Your task to perform on an android device: turn off notifications settings in the gmail app Image 0: 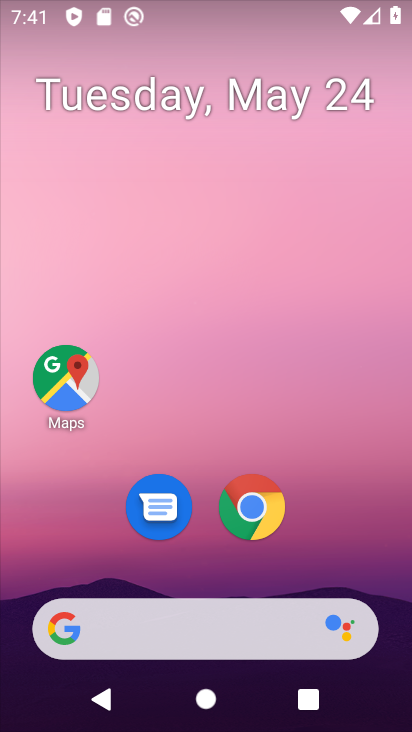
Step 0: press home button
Your task to perform on an android device: turn off notifications settings in the gmail app Image 1: 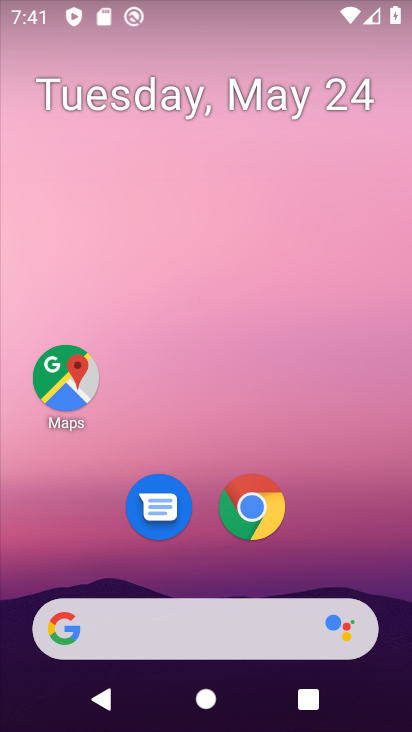
Step 1: drag from (151, 626) to (345, 146)
Your task to perform on an android device: turn off notifications settings in the gmail app Image 2: 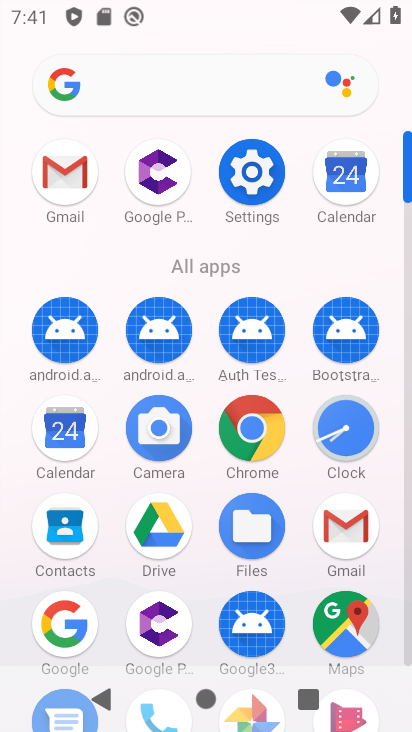
Step 2: click (66, 181)
Your task to perform on an android device: turn off notifications settings in the gmail app Image 3: 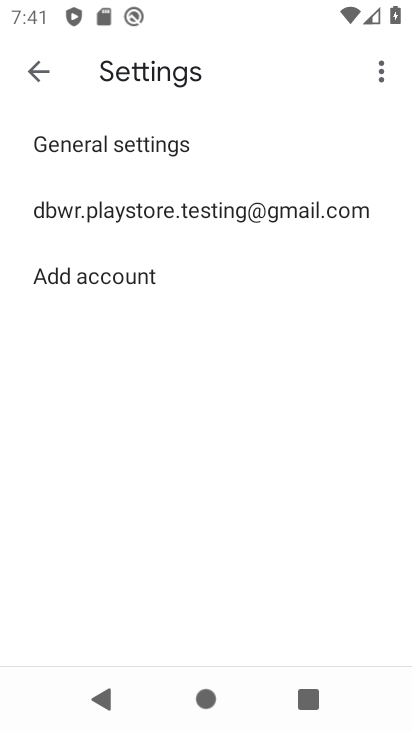
Step 3: click (148, 212)
Your task to perform on an android device: turn off notifications settings in the gmail app Image 4: 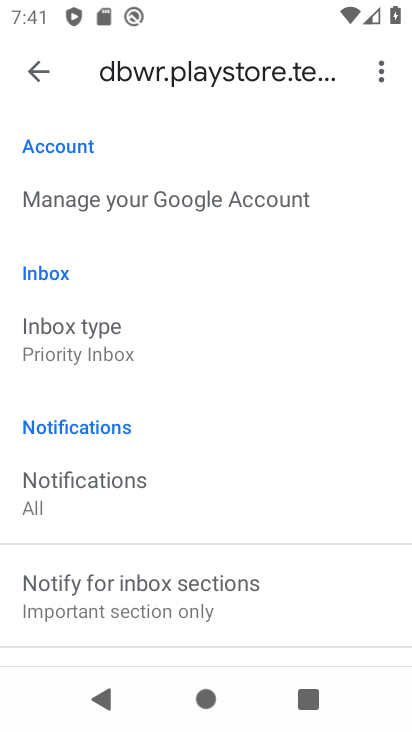
Step 4: click (96, 496)
Your task to perform on an android device: turn off notifications settings in the gmail app Image 5: 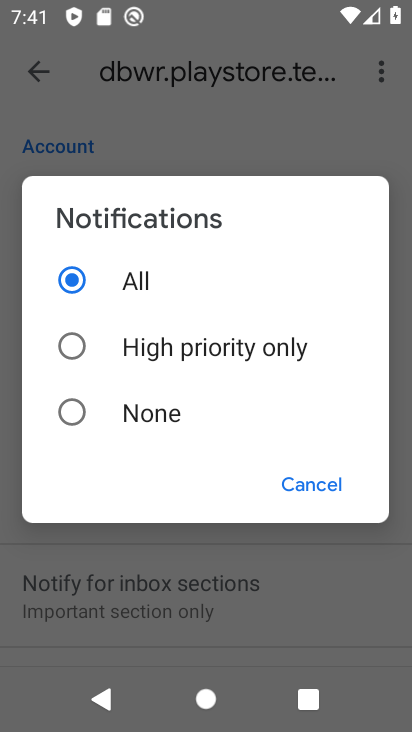
Step 5: click (78, 404)
Your task to perform on an android device: turn off notifications settings in the gmail app Image 6: 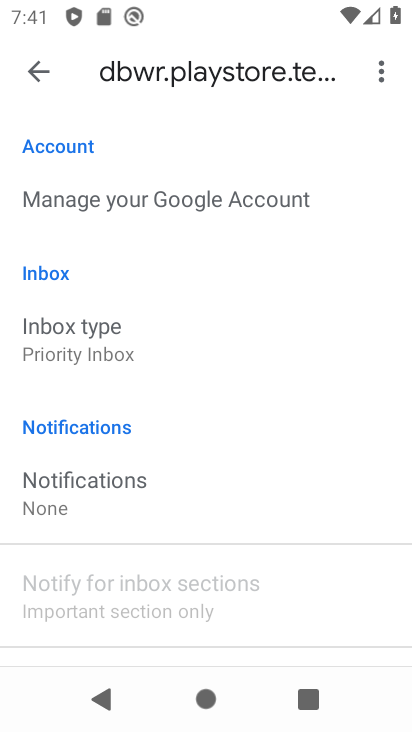
Step 6: task complete